Your task to perform on an android device: delete a single message in the gmail app Image 0: 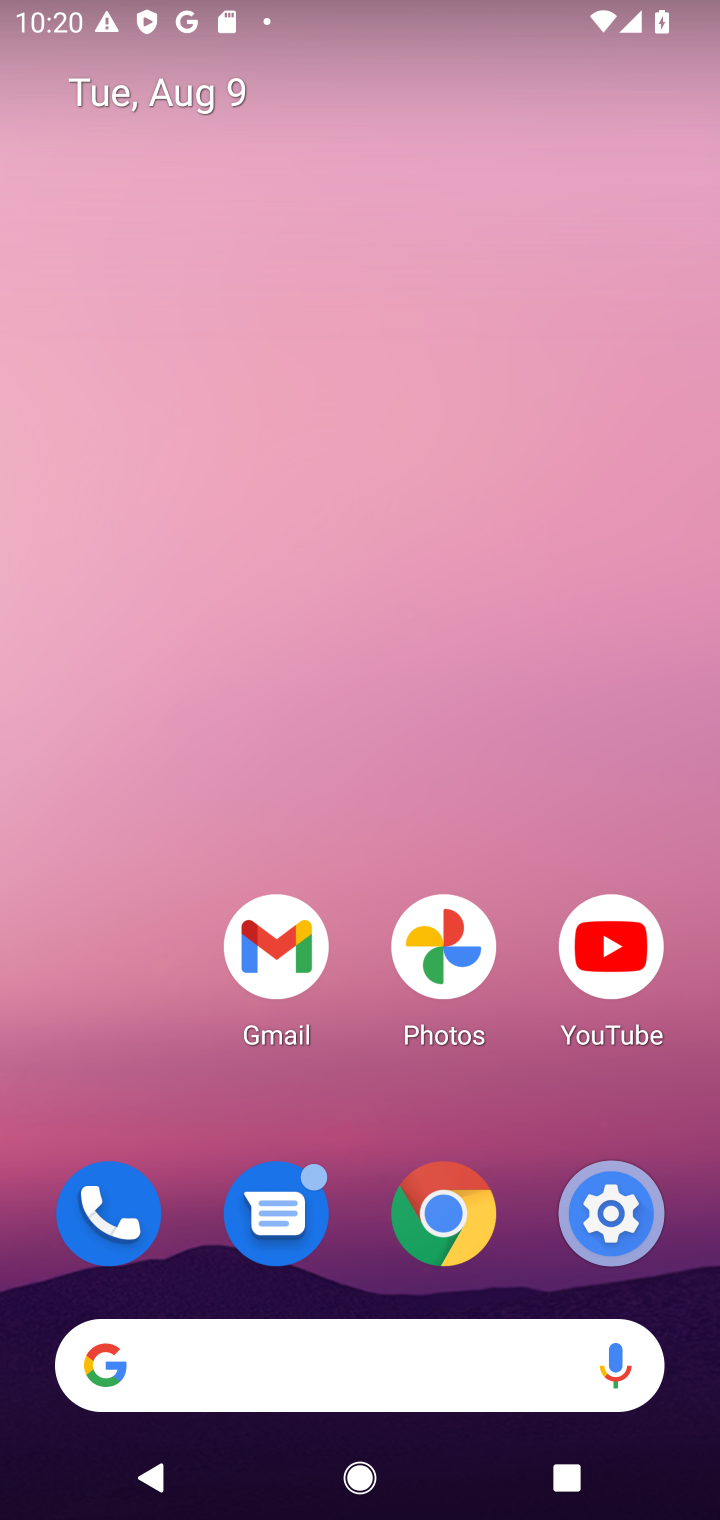
Step 0: drag from (253, 1173) to (627, 52)
Your task to perform on an android device: delete a single message in the gmail app Image 1: 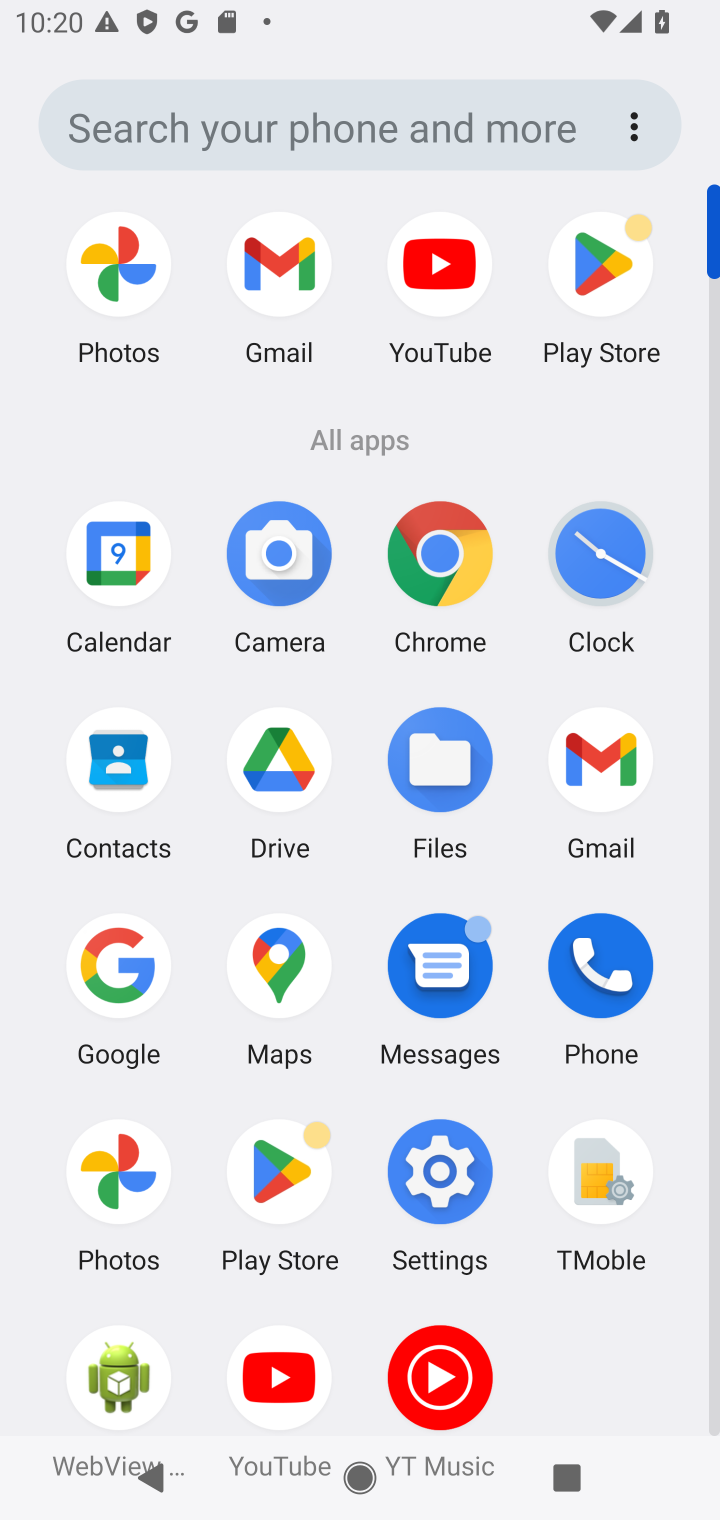
Step 1: click (597, 763)
Your task to perform on an android device: delete a single message in the gmail app Image 2: 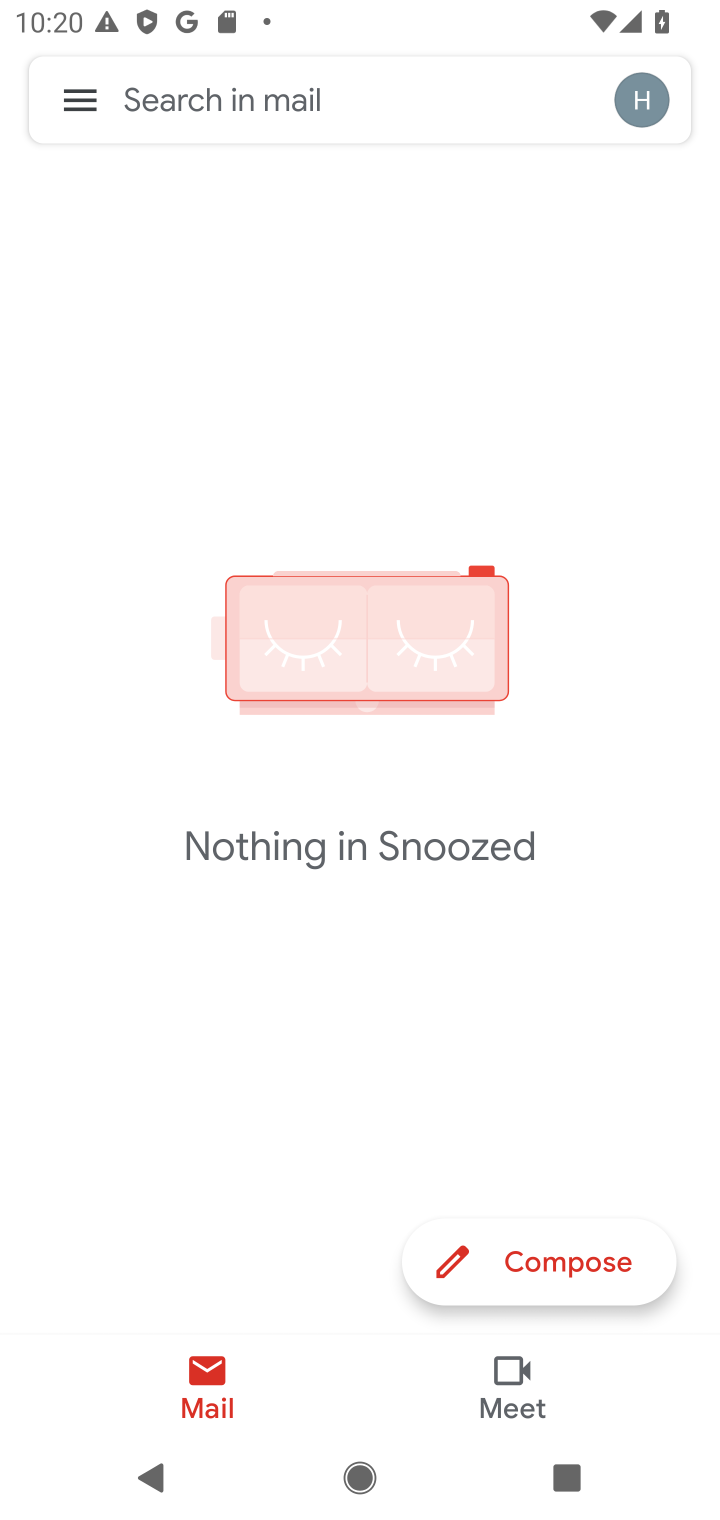
Step 2: click (35, 94)
Your task to perform on an android device: delete a single message in the gmail app Image 3: 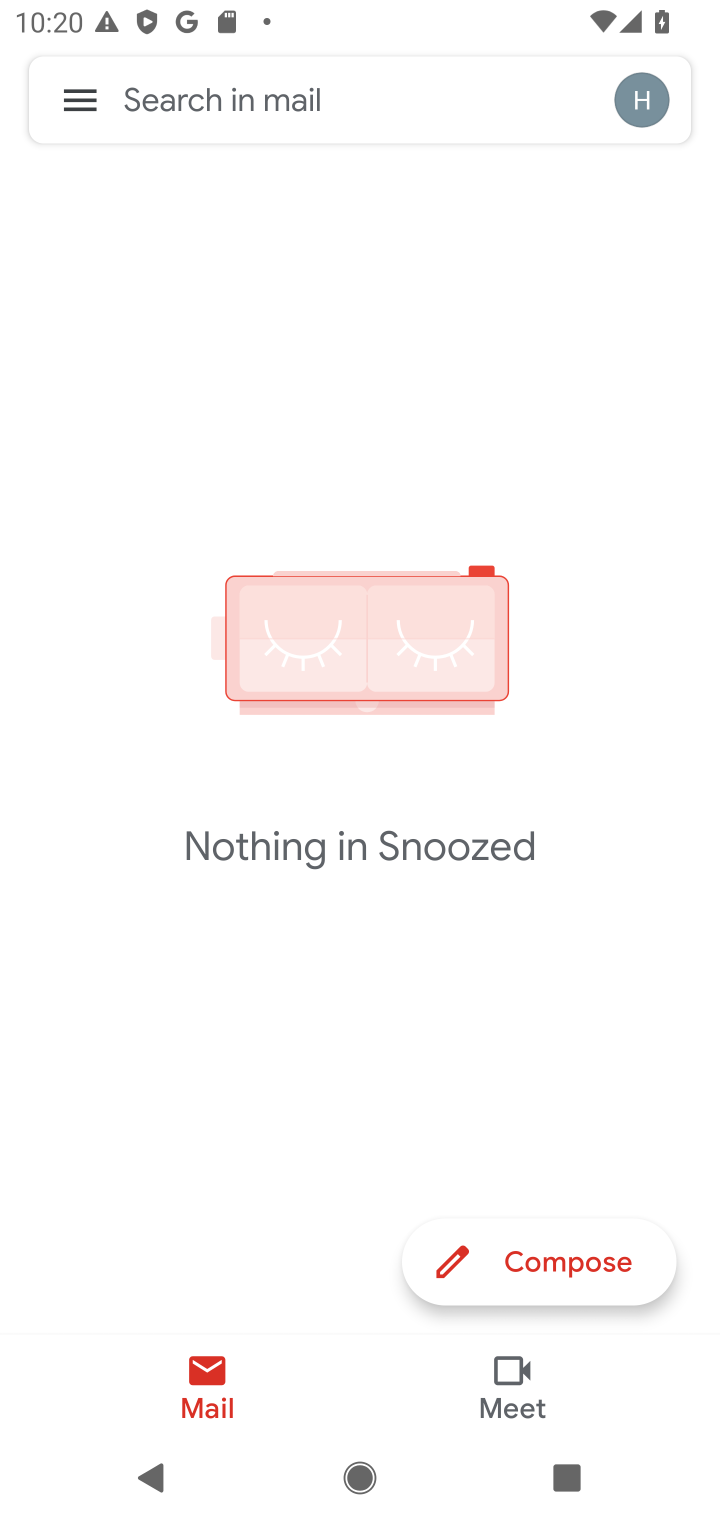
Step 3: click (61, 111)
Your task to perform on an android device: delete a single message in the gmail app Image 4: 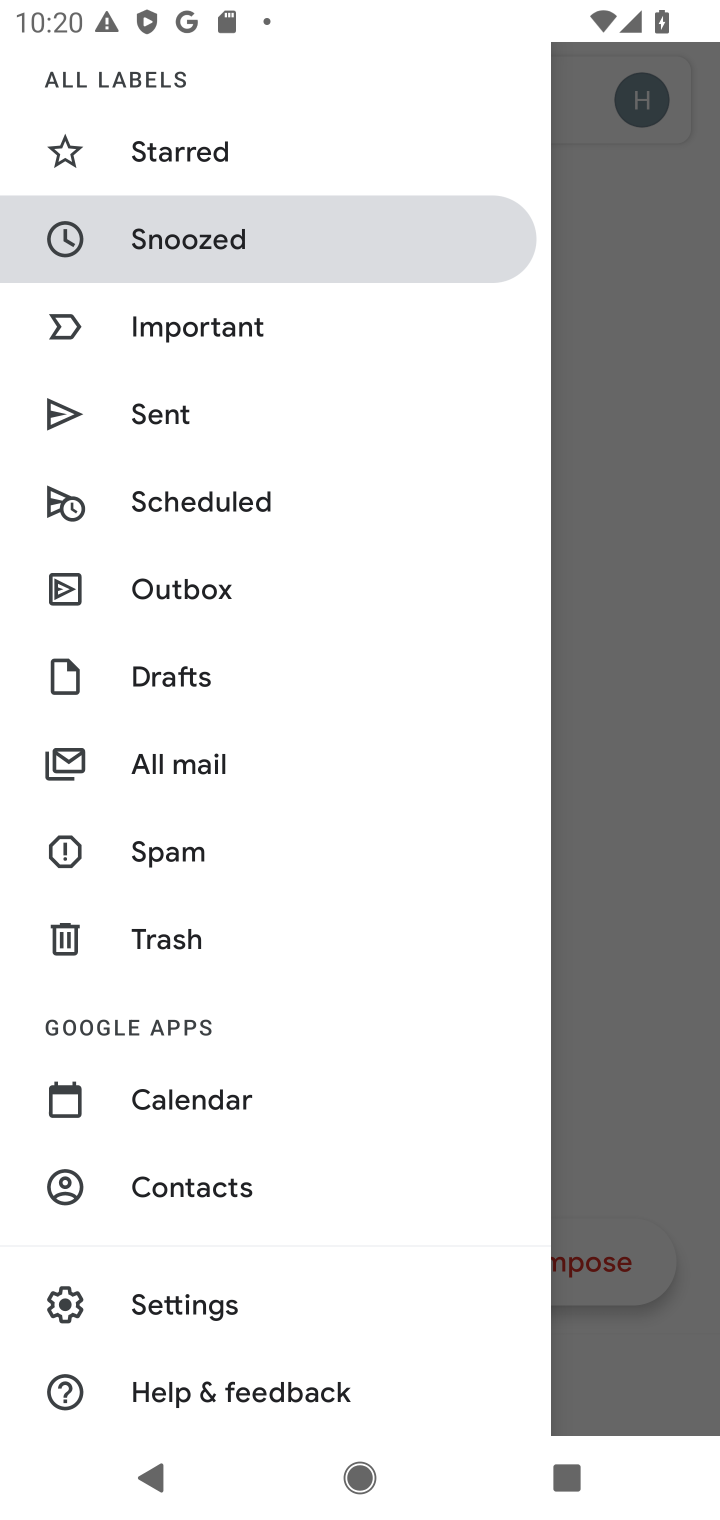
Step 4: drag from (289, 1290) to (233, 515)
Your task to perform on an android device: delete a single message in the gmail app Image 5: 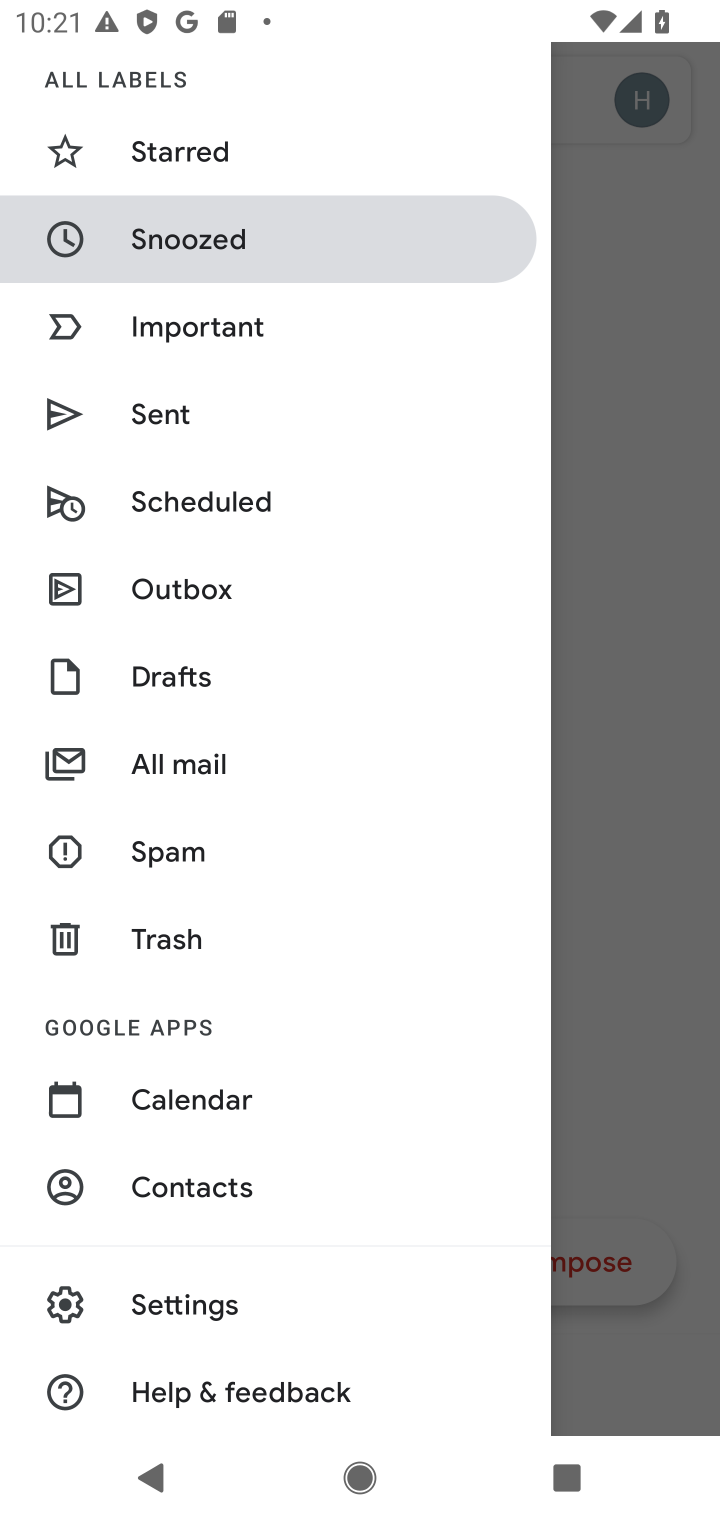
Step 5: click (169, 796)
Your task to perform on an android device: delete a single message in the gmail app Image 6: 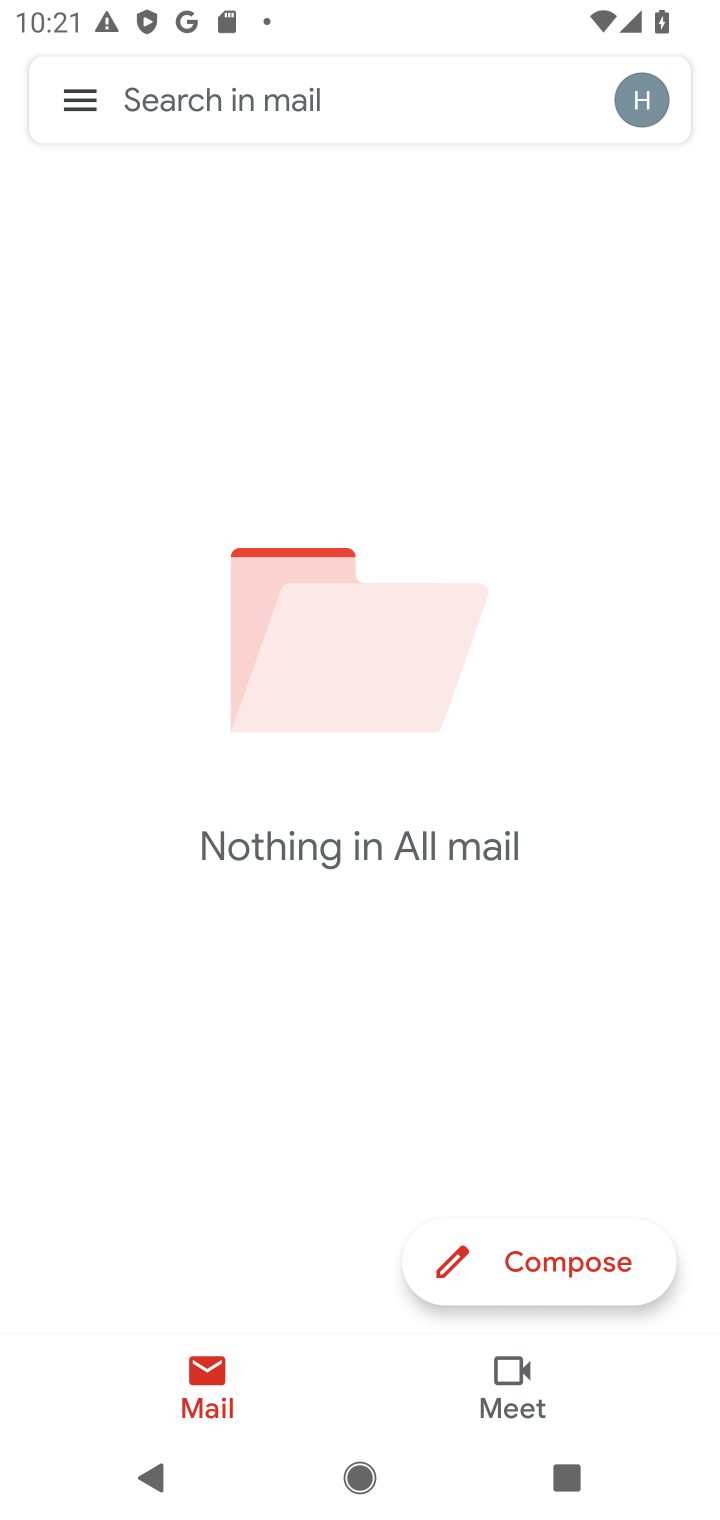
Step 6: click (64, 92)
Your task to perform on an android device: delete a single message in the gmail app Image 7: 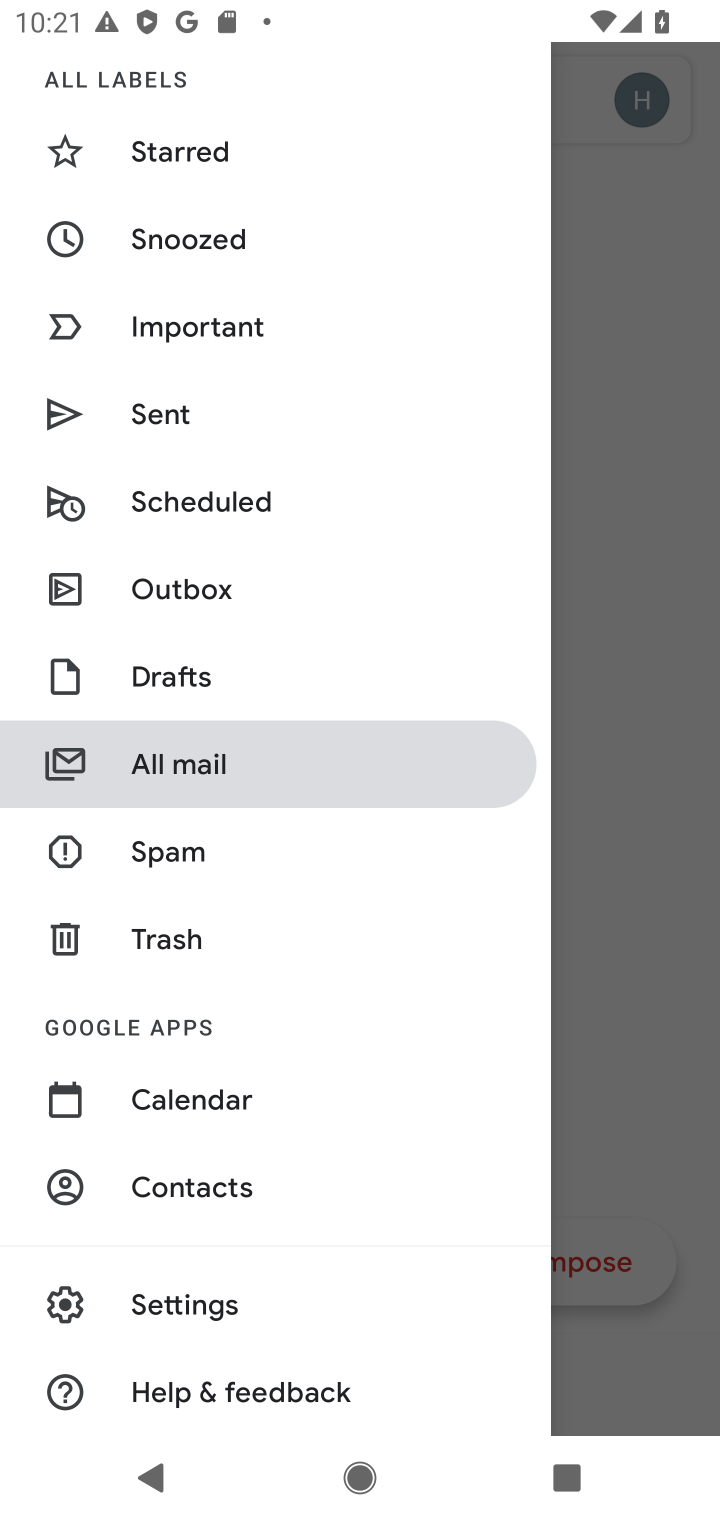
Step 7: click (227, 773)
Your task to perform on an android device: delete a single message in the gmail app Image 8: 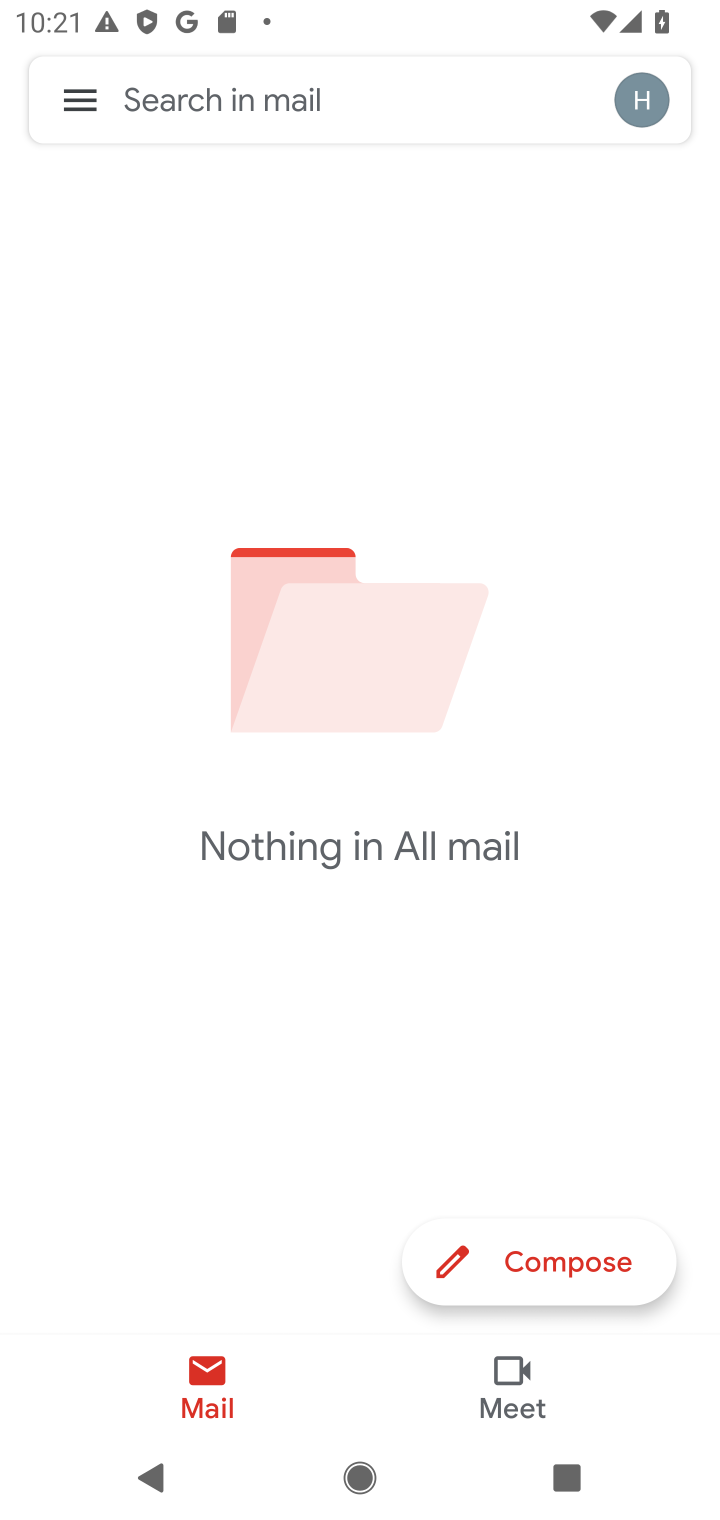
Step 8: task complete